Your task to perform on an android device: turn on sleep mode Image 0: 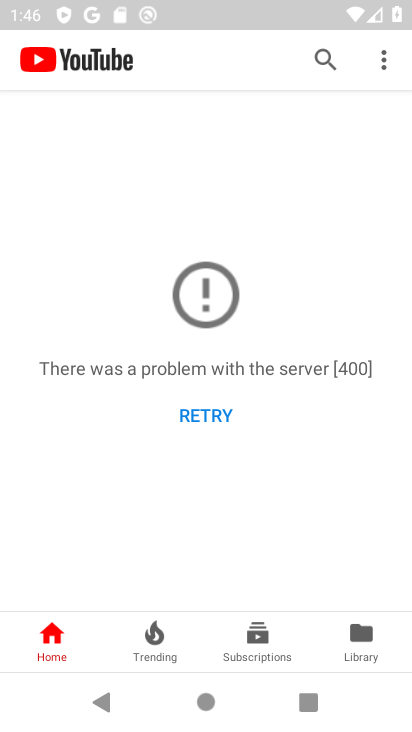
Step 0: task impossible